Your task to perform on an android device: create a new album in the google photos Image 0: 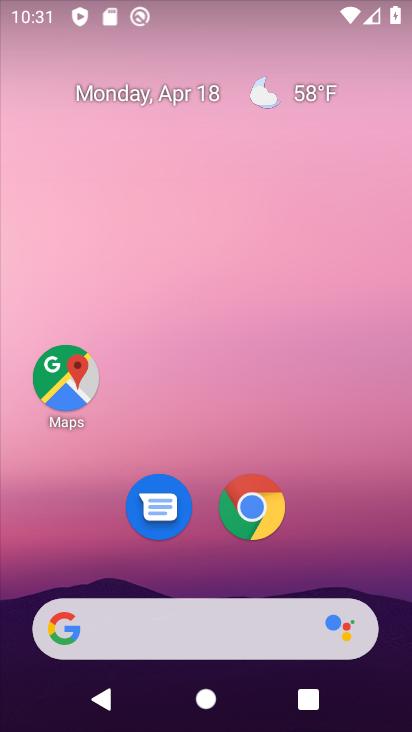
Step 0: drag from (189, 583) to (233, 54)
Your task to perform on an android device: create a new album in the google photos Image 1: 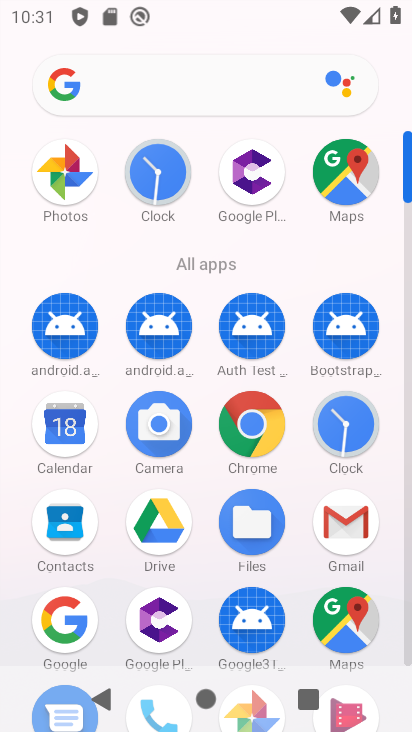
Step 1: click (84, 199)
Your task to perform on an android device: create a new album in the google photos Image 2: 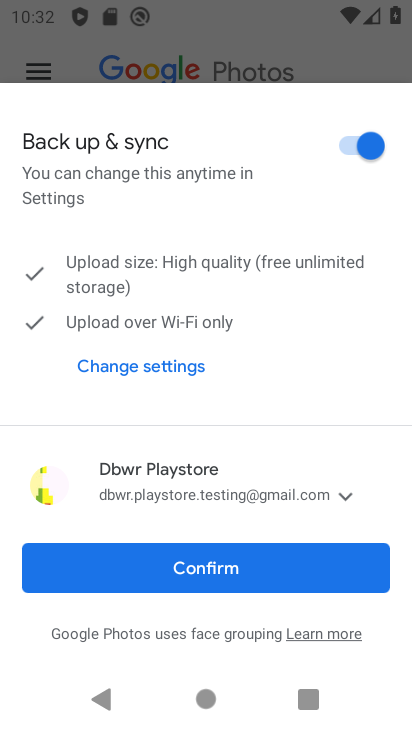
Step 2: click (270, 566)
Your task to perform on an android device: create a new album in the google photos Image 3: 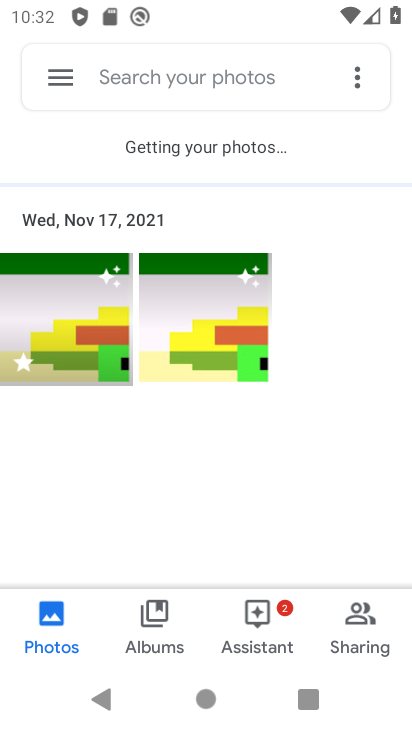
Step 3: click (78, 344)
Your task to perform on an android device: create a new album in the google photos Image 4: 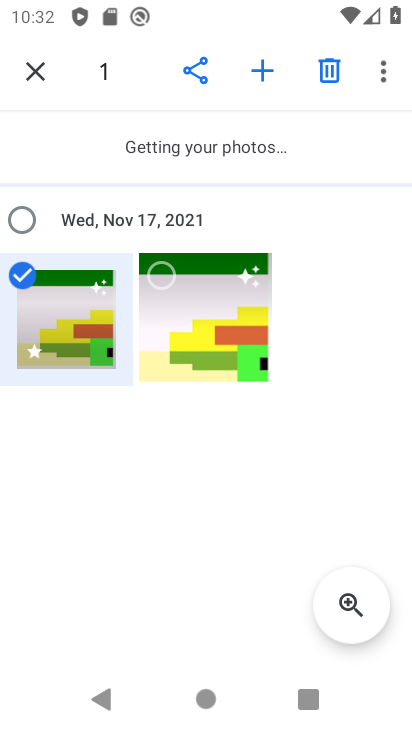
Step 4: click (167, 280)
Your task to perform on an android device: create a new album in the google photos Image 5: 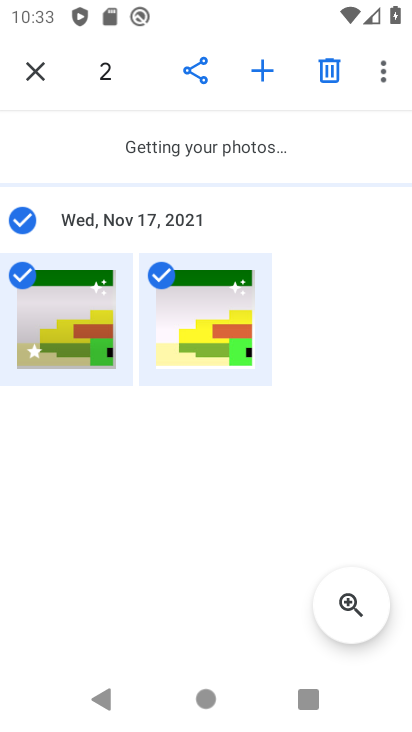
Step 5: click (266, 65)
Your task to perform on an android device: create a new album in the google photos Image 6: 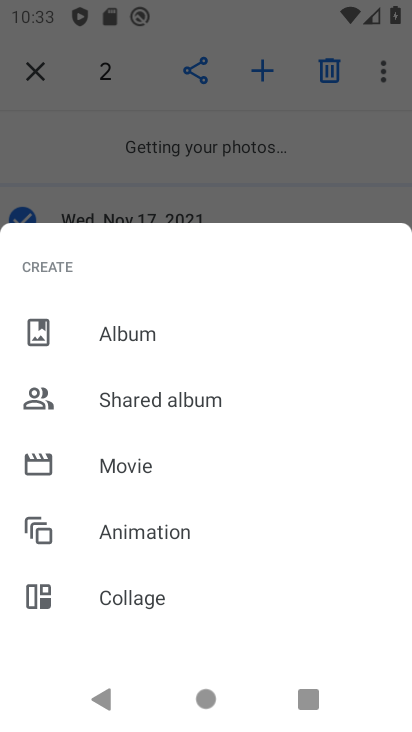
Step 6: click (123, 343)
Your task to perform on an android device: create a new album in the google photos Image 7: 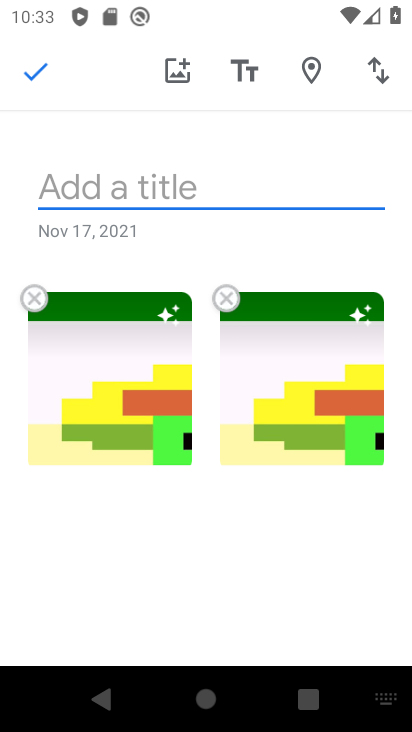
Step 7: type "fas"
Your task to perform on an android device: create a new album in the google photos Image 8: 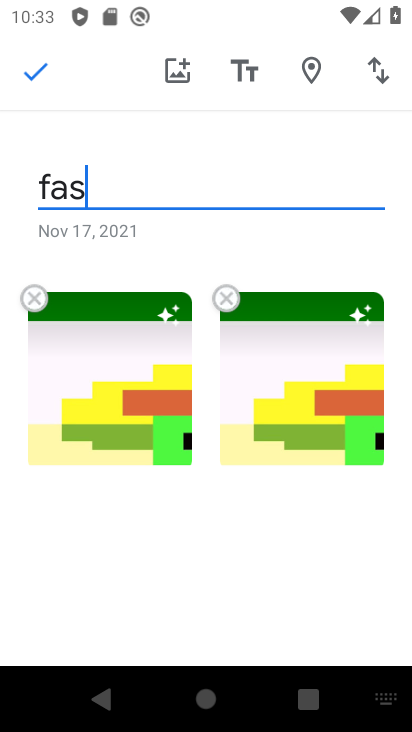
Step 8: click (25, 73)
Your task to perform on an android device: create a new album in the google photos Image 9: 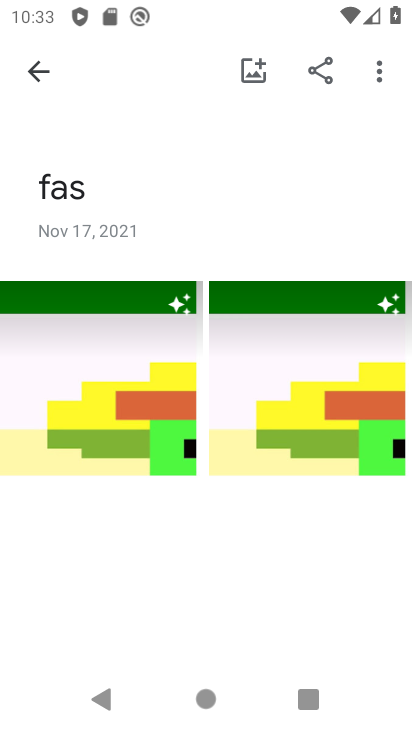
Step 9: task complete